Your task to perform on an android device: Search for Mexican restaurants on Maps Image 0: 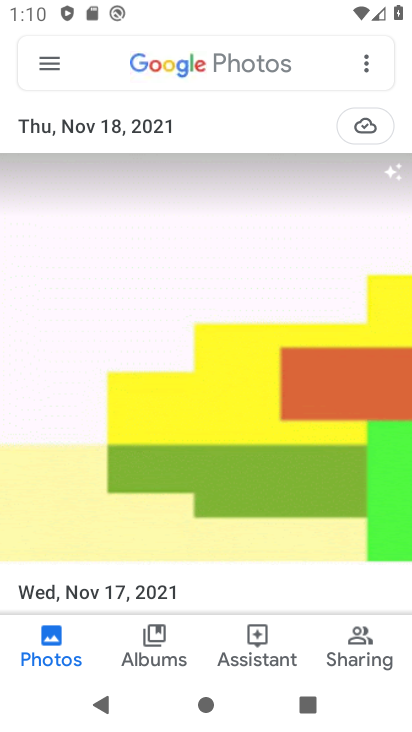
Step 0: press home button
Your task to perform on an android device: Search for Mexican restaurants on Maps Image 1: 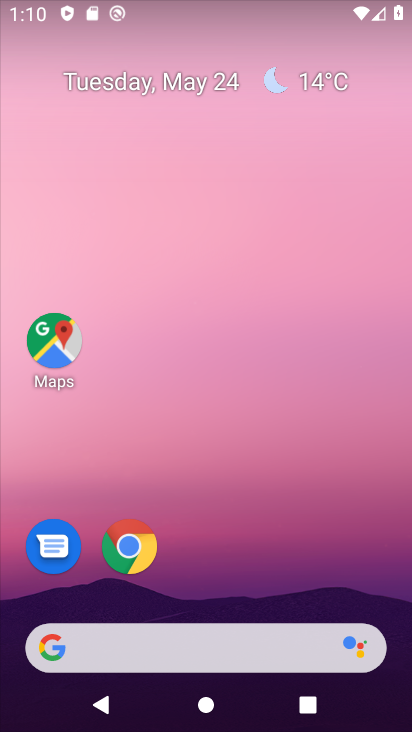
Step 1: click (52, 332)
Your task to perform on an android device: Search for Mexican restaurants on Maps Image 2: 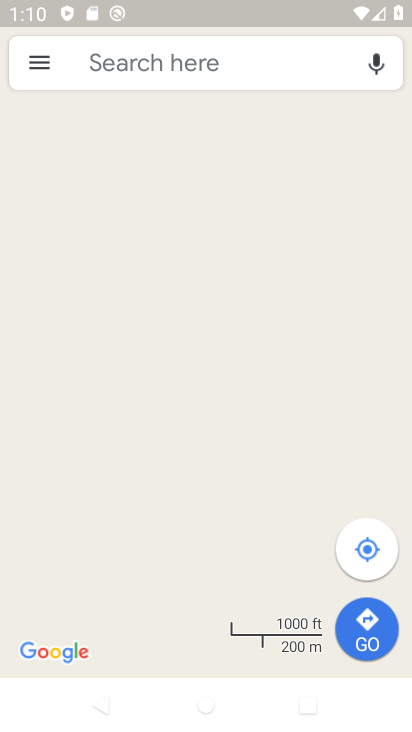
Step 2: click (146, 66)
Your task to perform on an android device: Search for Mexican restaurants on Maps Image 3: 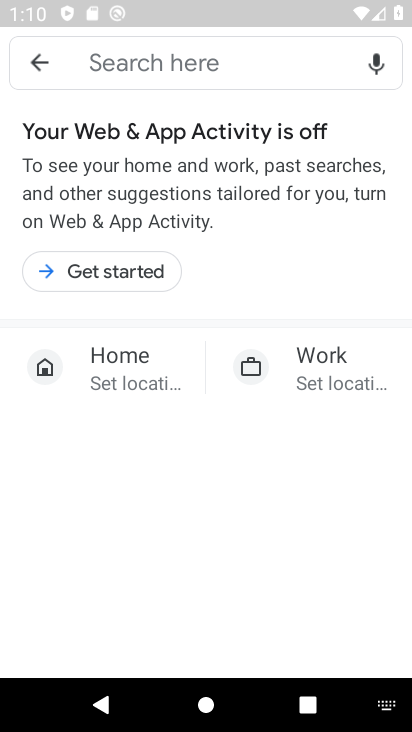
Step 3: click (121, 258)
Your task to perform on an android device: Search for Mexican restaurants on Maps Image 4: 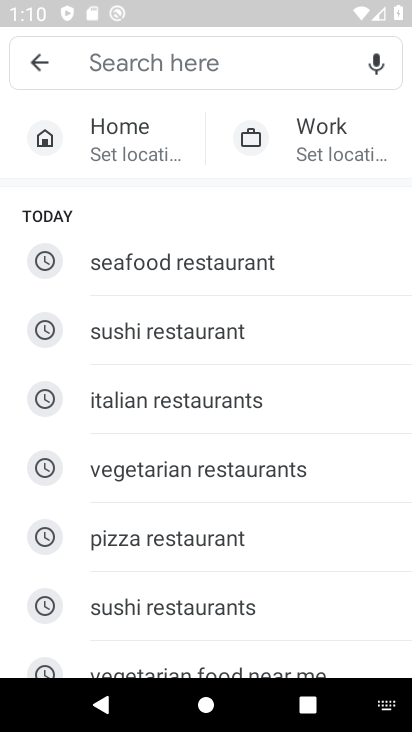
Step 4: drag from (199, 563) to (182, 224)
Your task to perform on an android device: Search for Mexican restaurants on Maps Image 5: 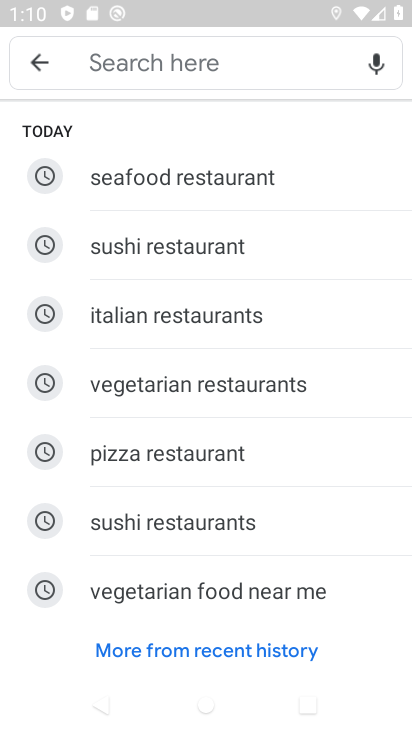
Step 5: click (161, 649)
Your task to perform on an android device: Search for Mexican restaurants on Maps Image 6: 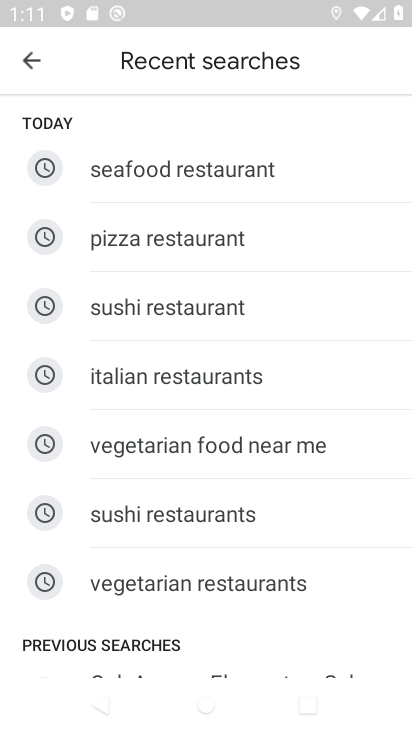
Step 6: drag from (176, 512) to (218, 27)
Your task to perform on an android device: Search for Mexican restaurants on Maps Image 7: 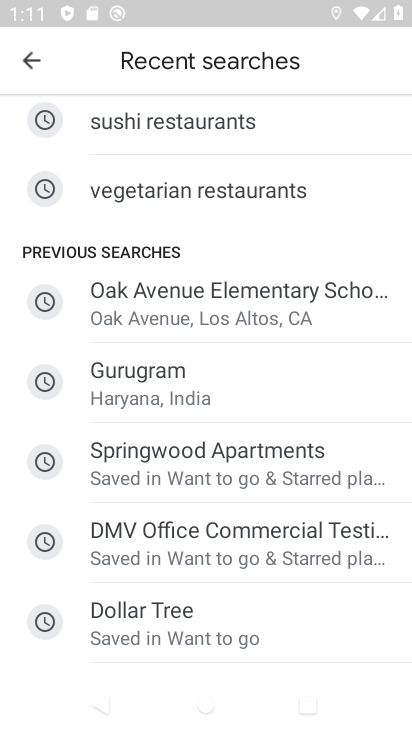
Step 7: press back button
Your task to perform on an android device: Search for Mexican restaurants on Maps Image 8: 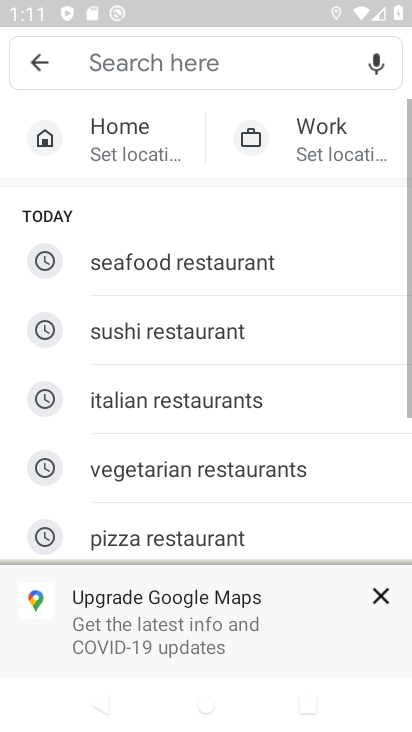
Step 8: click (202, 67)
Your task to perform on an android device: Search for Mexican restaurants on Maps Image 9: 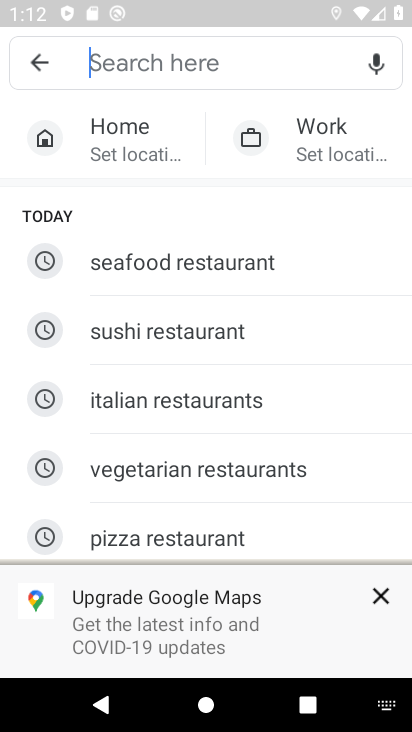
Step 9: type "mexican restaurent"
Your task to perform on an android device: Search for Mexican restaurants on Maps Image 10: 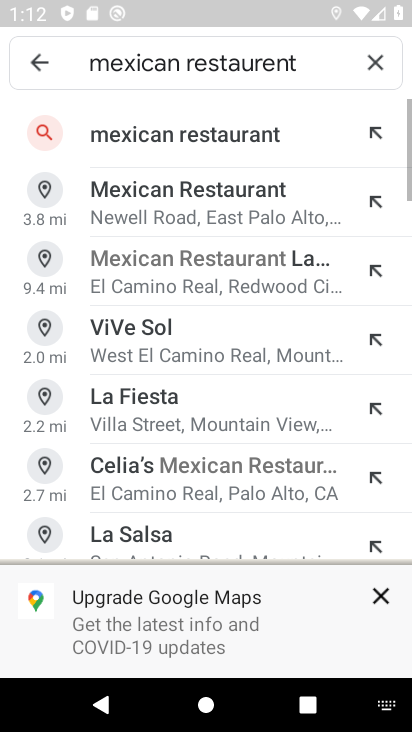
Step 10: click (179, 140)
Your task to perform on an android device: Search for Mexican restaurants on Maps Image 11: 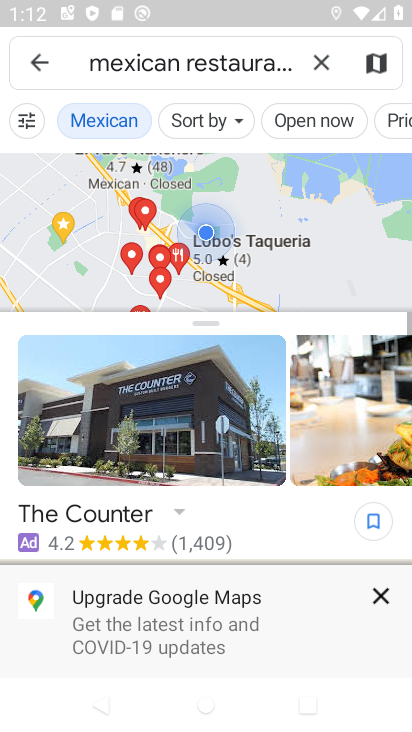
Step 11: task complete